Your task to perform on an android device: turn off picture-in-picture Image 0: 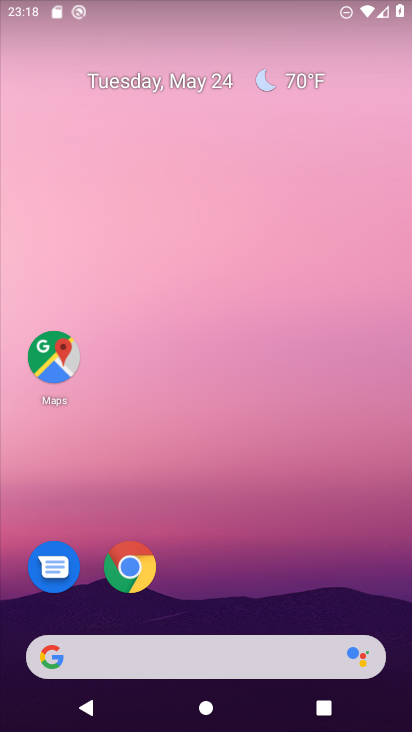
Step 0: drag from (276, 537) to (207, 104)
Your task to perform on an android device: turn off picture-in-picture Image 1: 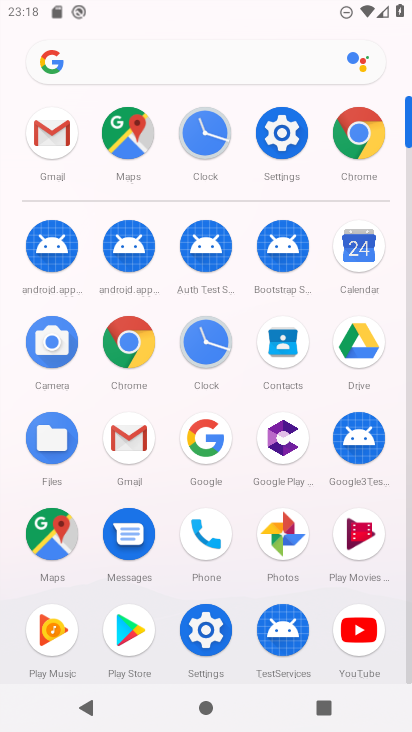
Step 1: click (278, 143)
Your task to perform on an android device: turn off picture-in-picture Image 2: 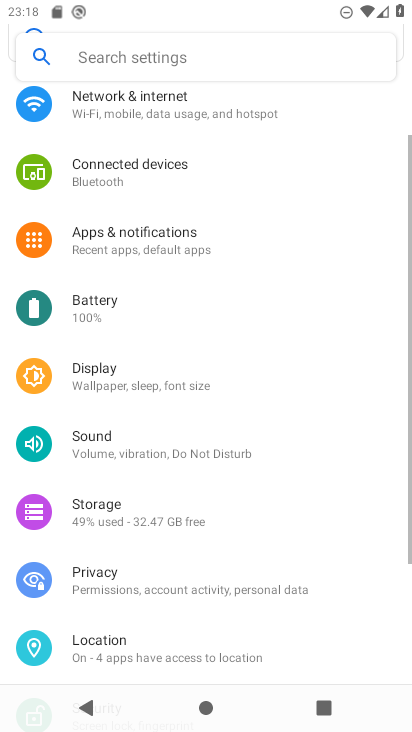
Step 2: drag from (267, 606) to (240, 129)
Your task to perform on an android device: turn off picture-in-picture Image 3: 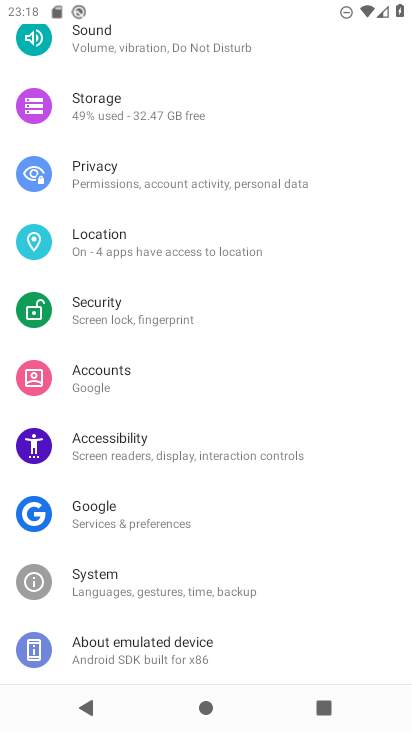
Step 3: drag from (175, 163) to (190, 609)
Your task to perform on an android device: turn off picture-in-picture Image 4: 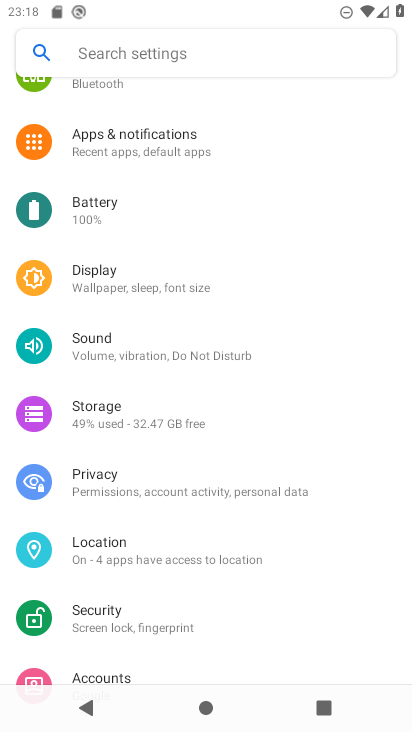
Step 4: click (170, 149)
Your task to perform on an android device: turn off picture-in-picture Image 5: 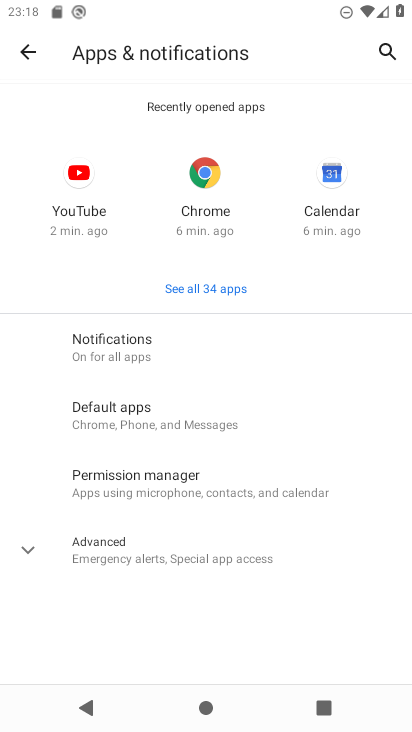
Step 5: click (213, 552)
Your task to perform on an android device: turn off picture-in-picture Image 6: 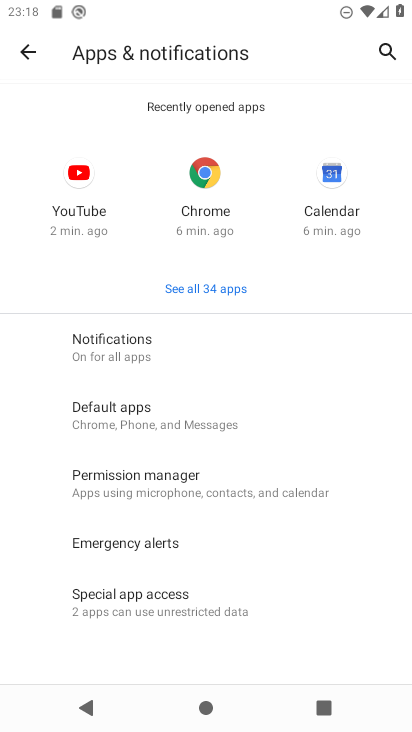
Step 6: click (220, 602)
Your task to perform on an android device: turn off picture-in-picture Image 7: 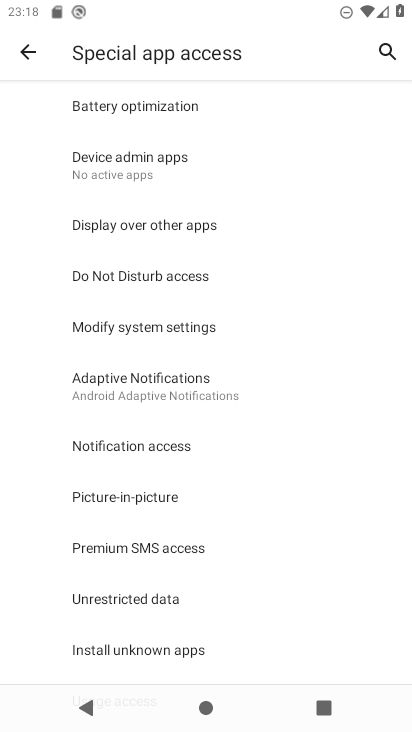
Step 7: click (137, 479)
Your task to perform on an android device: turn off picture-in-picture Image 8: 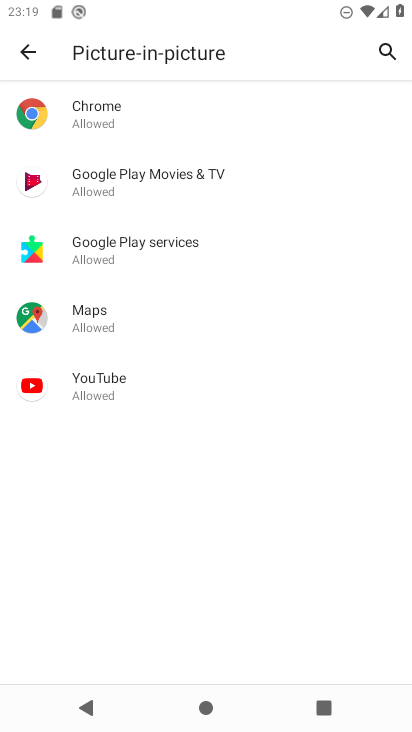
Step 8: click (216, 202)
Your task to perform on an android device: turn off picture-in-picture Image 9: 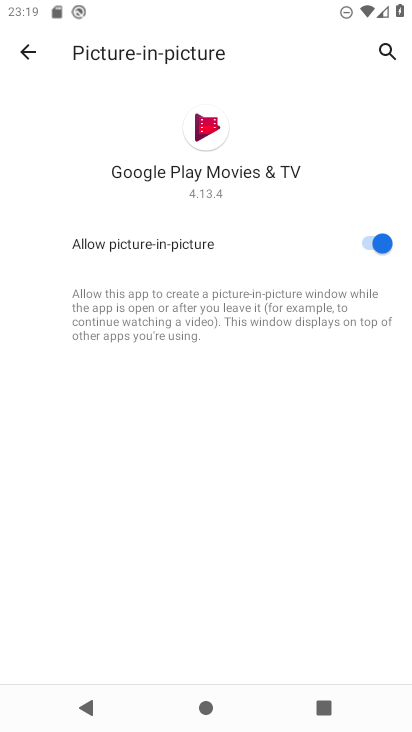
Step 9: click (375, 244)
Your task to perform on an android device: turn off picture-in-picture Image 10: 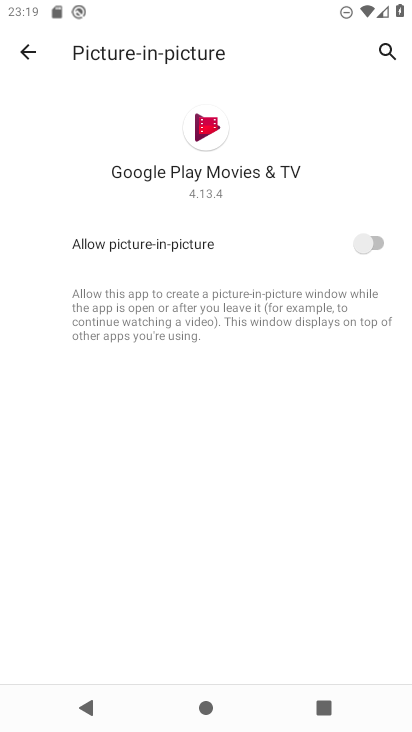
Step 10: task complete